Your task to perform on an android device: change the upload size in google photos Image 0: 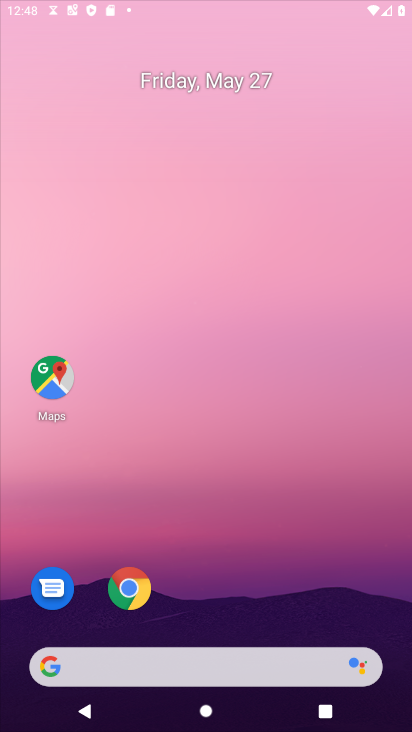
Step 0: press home button
Your task to perform on an android device: change the upload size in google photos Image 1: 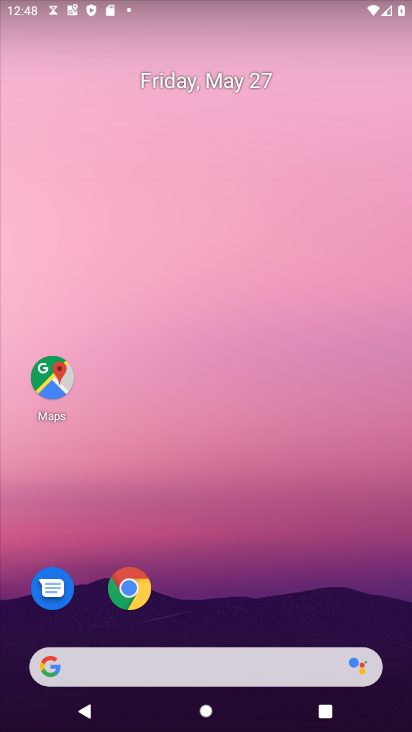
Step 1: drag from (216, 622) to (221, 127)
Your task to perform on an android device: change the upload size in google photos Image 2: 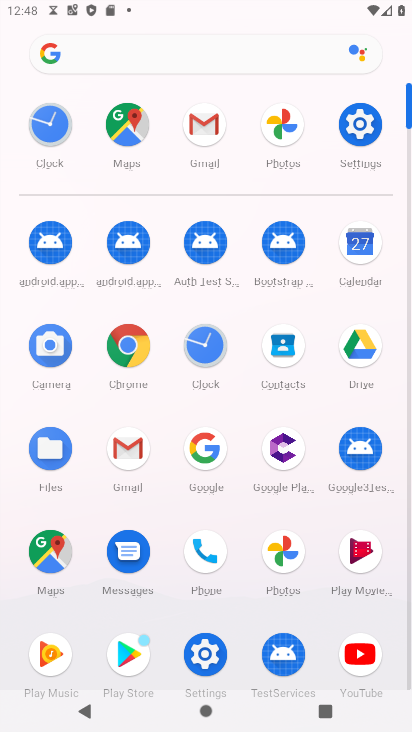
Step 2: click (283, 545)
Your task to perform on an android device: change the upload size in google photos Image 3: 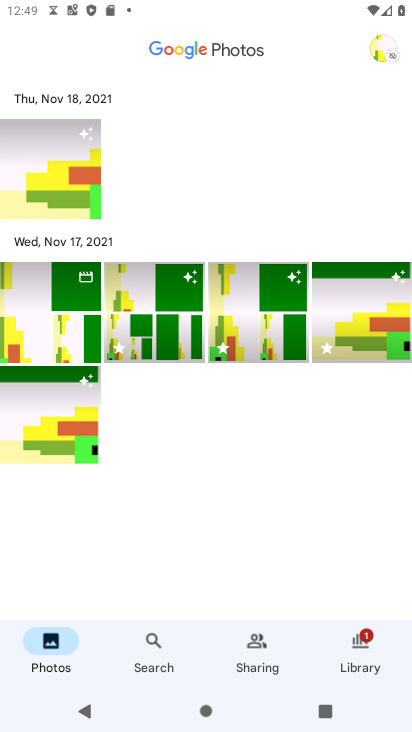
Step 3: click (377, 45)
Your task to perform on an android device: change the upload size in google photos Image 4: 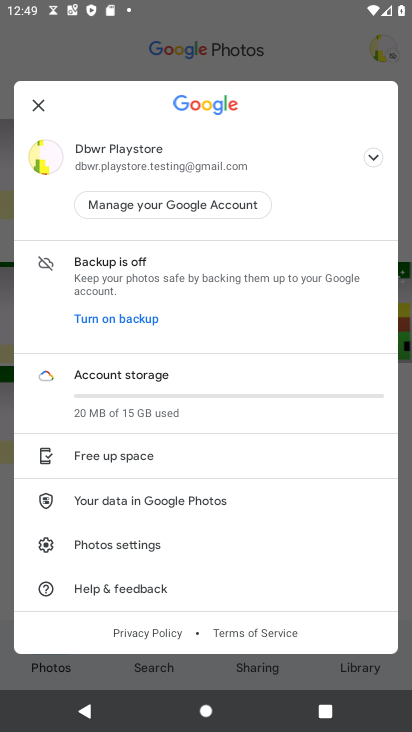
Step 4: click (169, 542)
Your task to perform on an android device: change the upload size in google photos Image 5: 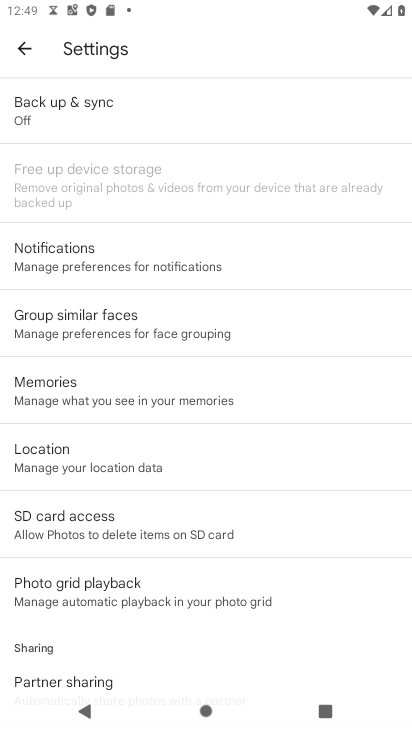
Step 5: click (149, 125)
Your task to perform on an android device: change the upload size in google photos Image 6: 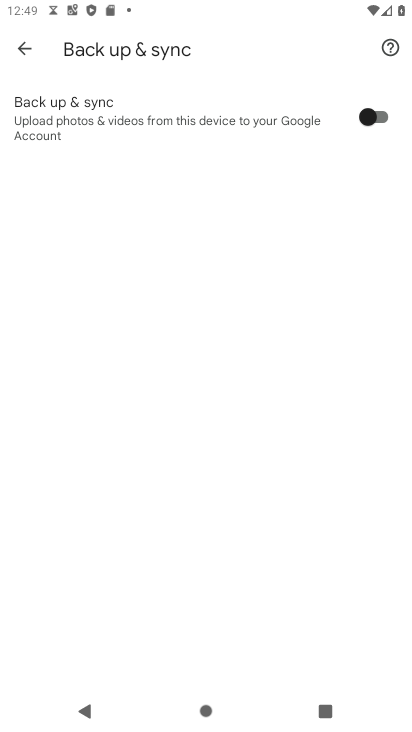
Step 6: click (371, 107)
Your task to perform on an android device: change the upload size in google photos Image 7: 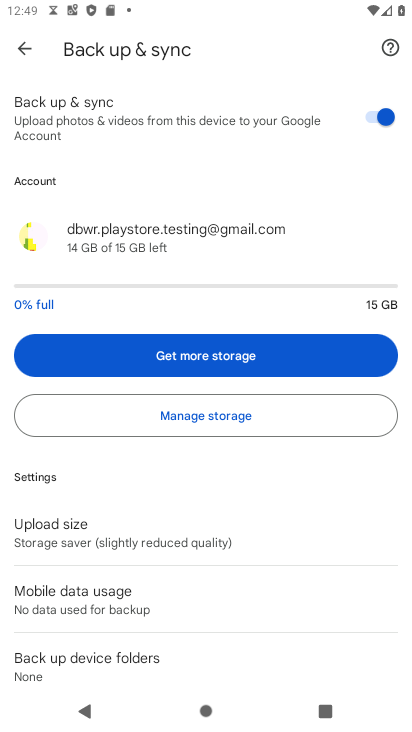
Step 7: click (102, 532)
Your task to perform on an android device: change the upload size in google photos Image 8: 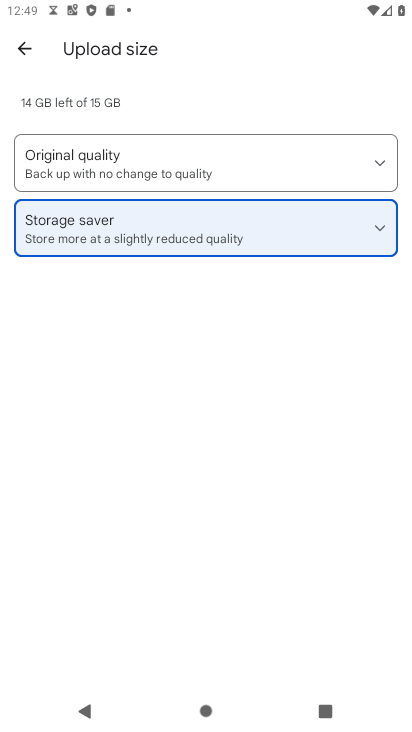
Step 8: click (137, 161)
Your task to perform on an android device: change the upload size in google photos Image 9: 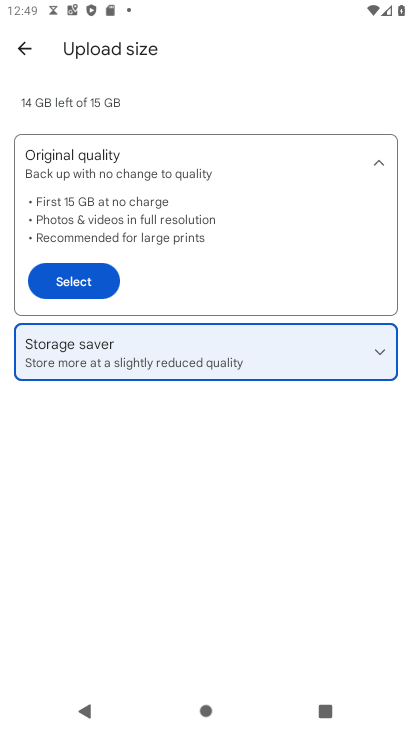
Step 9: click (84, 282)
Your task to perform on an android device: change the upload size in google photos Image 10: 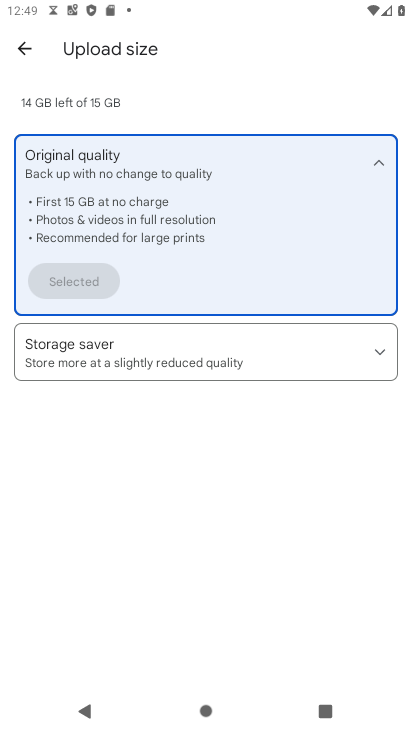
Step 10: task complete